Your task to perform on an android device: See recent photos Image 0: 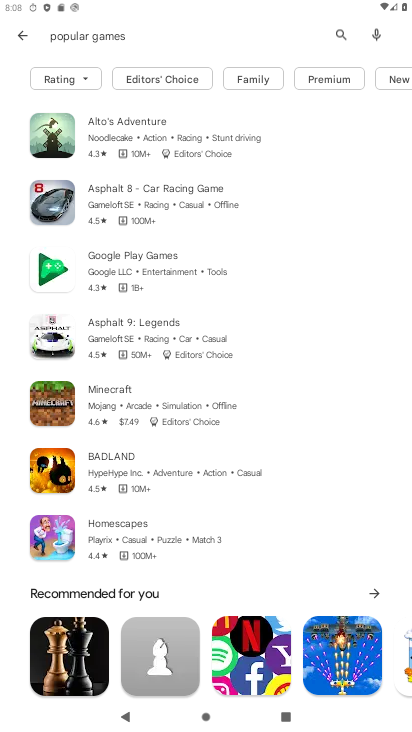
Step 0: press home button
Your task to perform on an android device: See recent photos Image 1: 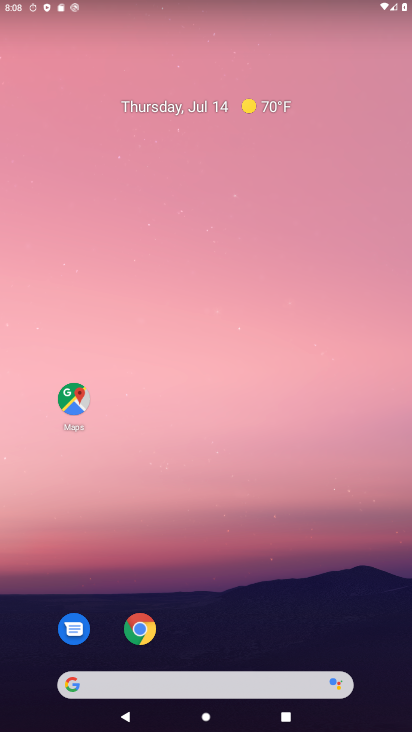
Step 1: drag from (310, 586) to (343, 117)
Your task to perform on an android device: See recent photos Image 2: 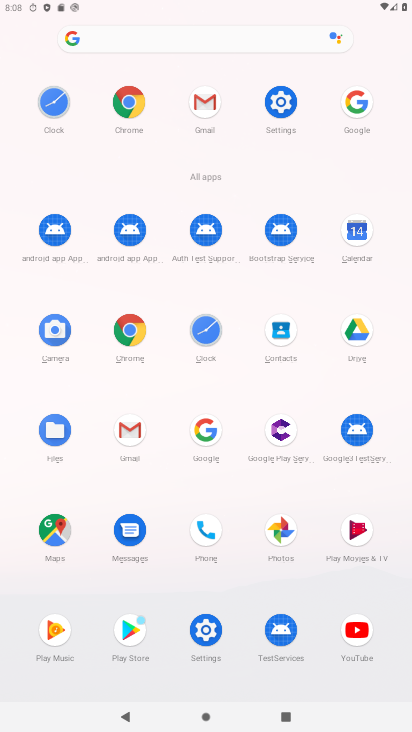
Step 2: click (290, 512)
Your task to perform on an android device: See recent photos Image 3: 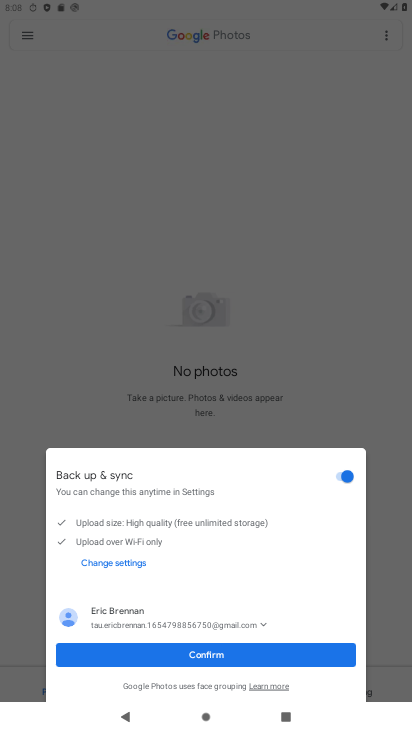
Step 3: drag from (296, 513) to (321, 536)
Your task to perform on an android device: See recent photos Image 4: 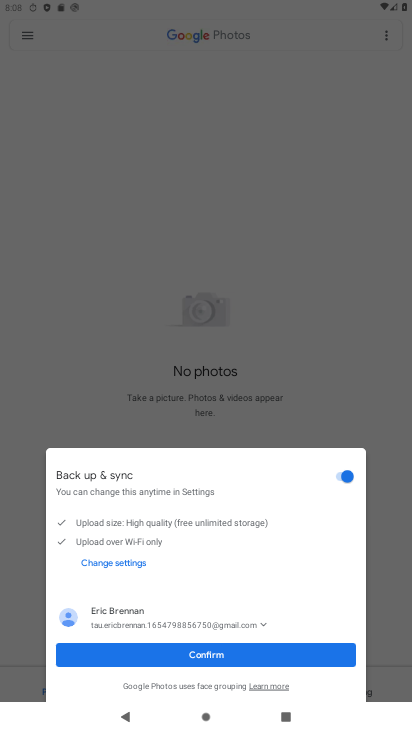
Step 4: click (226, 651)
Your task to perform on an android device: See recent photos Image 5: 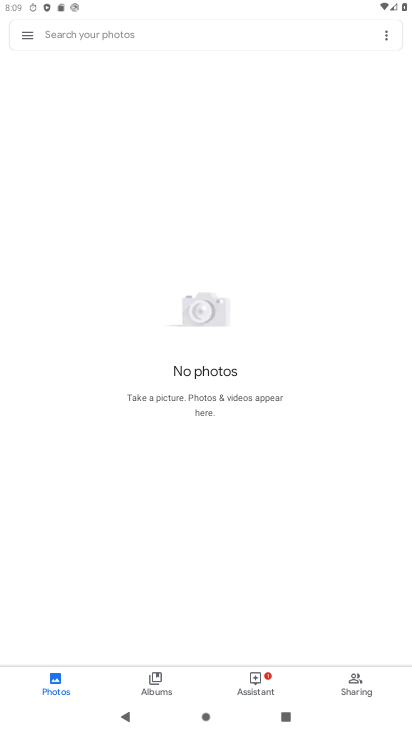
Step 5: task complete